Your task to perform on an android device: change keyboard looks Image 0: 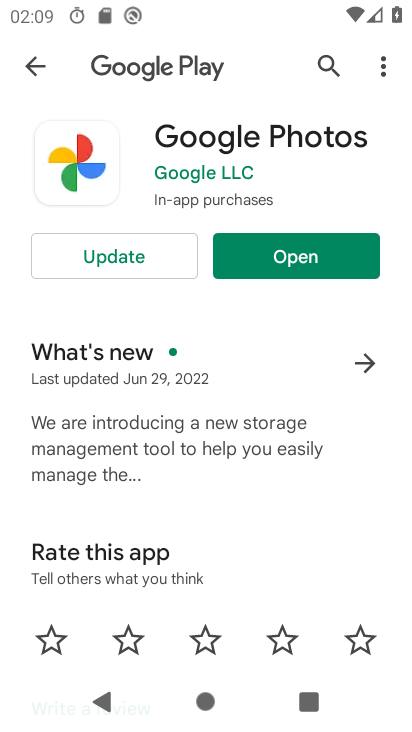
Step 0: press home button
Your task to perform on an android device: change keyboard looks Image 1: 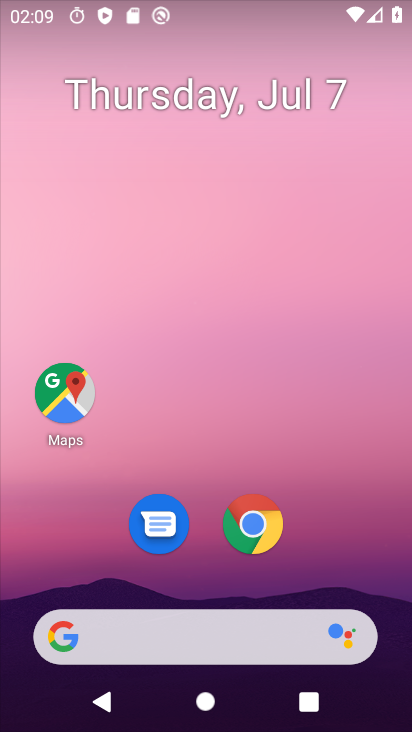
Step 1: drag from (336, 531) to (367, 38)
Your task to perform on an android device: change keyboard looks Image 2: 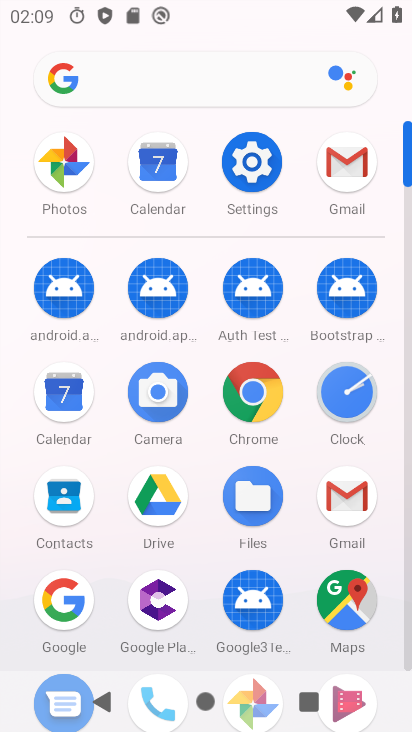
Step 2: click (244, 151)
Your task to perform on an android device: change keyboard looks Image 3: 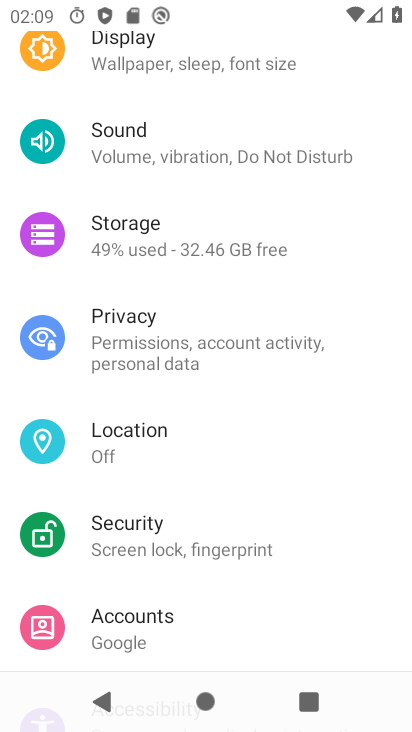
Step 3: drag from (238, 487) to (224, 129)
Your task to perform on an android device: change keyboard looks Image 4: 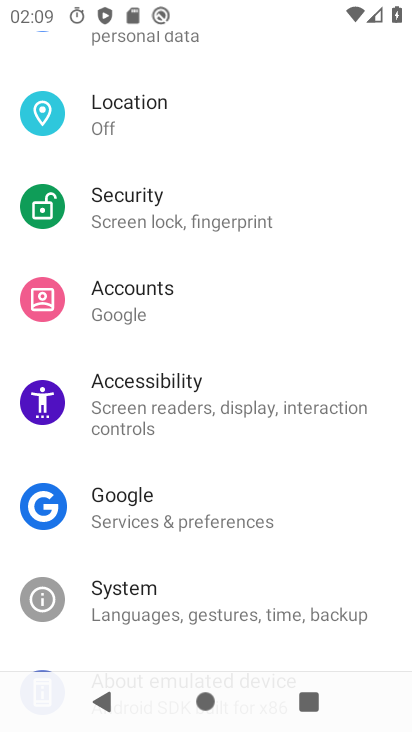
Step 4: drag from (205, 476) to (229, 163)
Your task to perform on an android device: change keyboard looks Image 5: 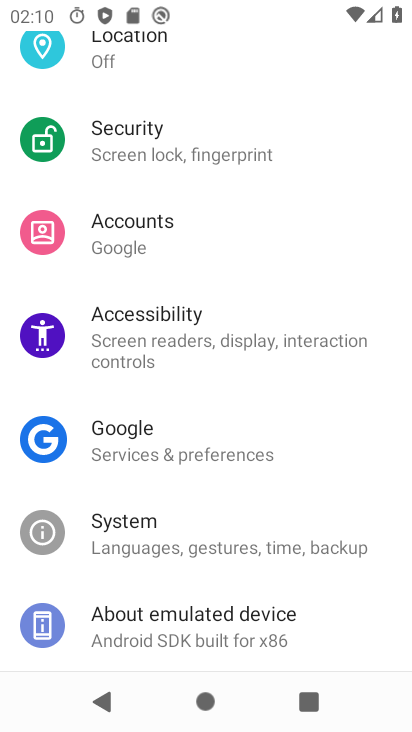
Step 5: click (201, 538)
Your task to perform on an android device: change keyboard looks Image 6: 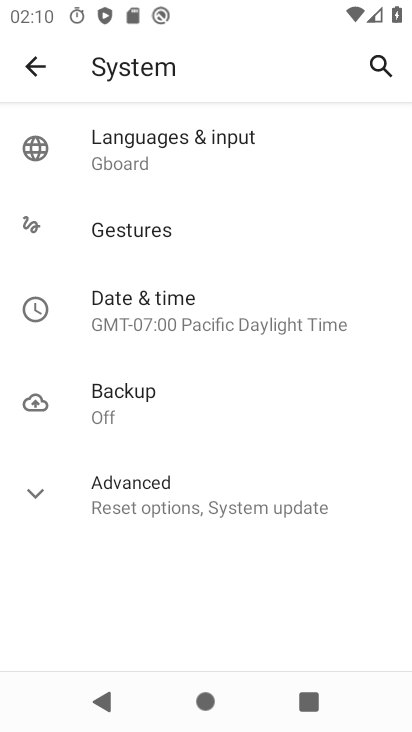
Step 6: click (188, 137)
Your task to perform on an android device: change keyboard looks Image 7: 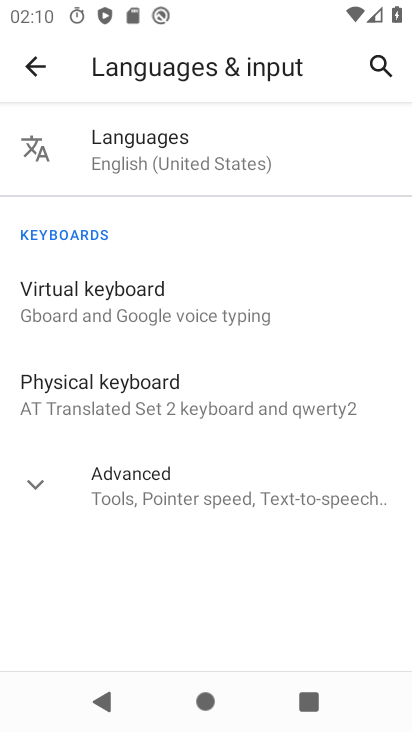
Step 7: click (137, 290)
Your task to perform on an android device: change keyboard looks Image 8: 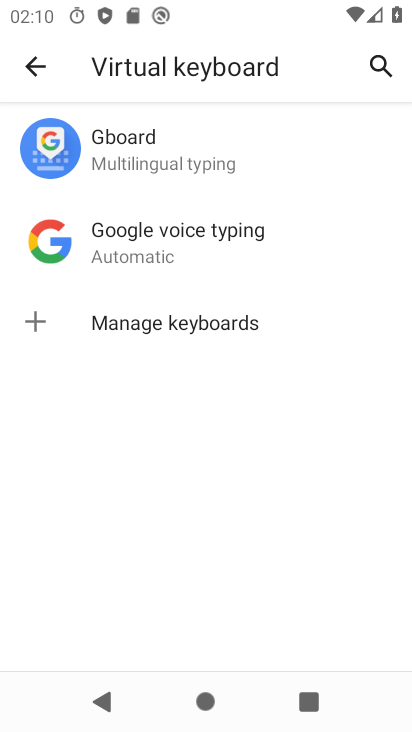
Step 8: click (147, 148)
Your task to perform on an android device: change keyboard looks Image 9: 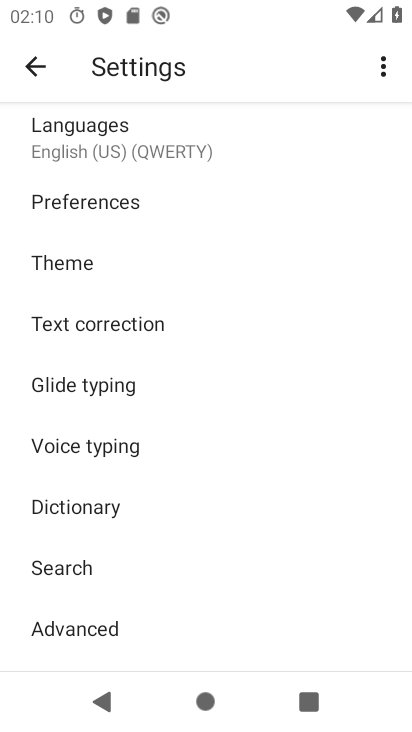
Step 9: click (79, 260)
Your task to perform on an android device: change keyboard looks Image 10: 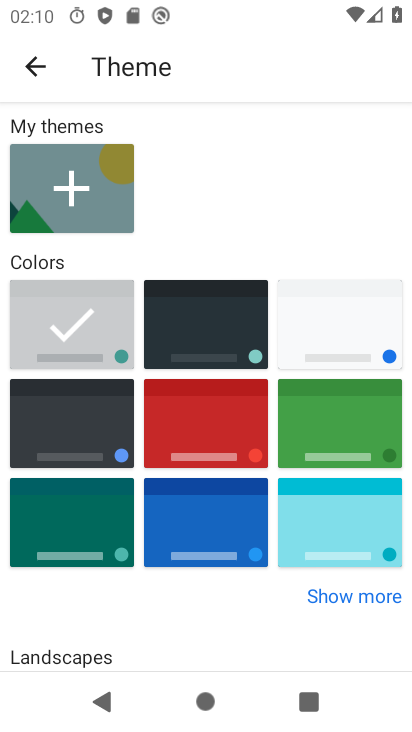
Step 10: click (316, 332)
Your task to perform on an android device: change keyboard looks Image 11: 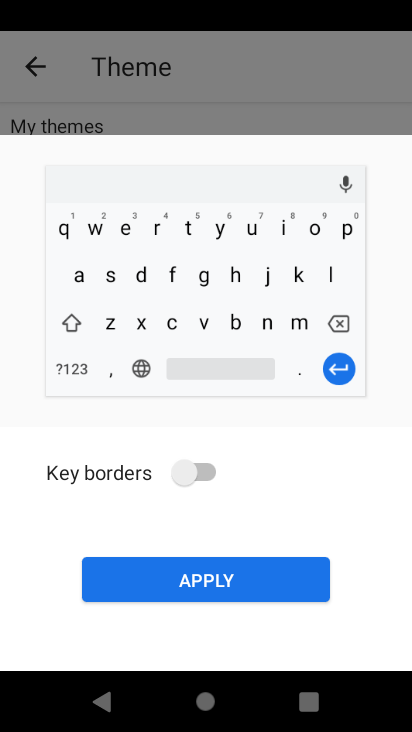
Step 11: click (204, 464)
Your task to perform on an android device: change keyboard looks Image 12: 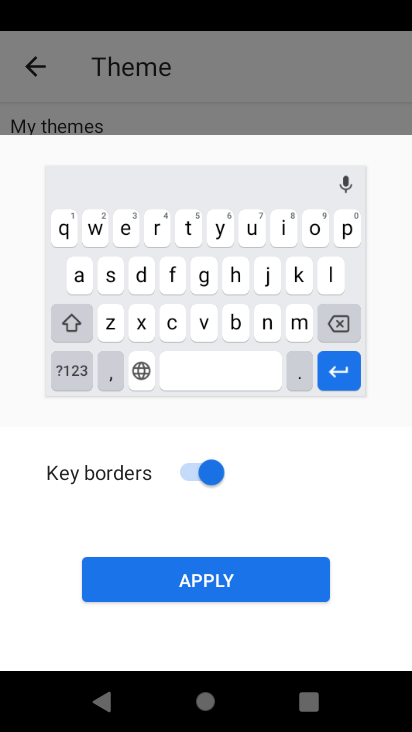
Step 12: click (232, 580)
Your task to perform on an android device: change keyboard looks Image 13: 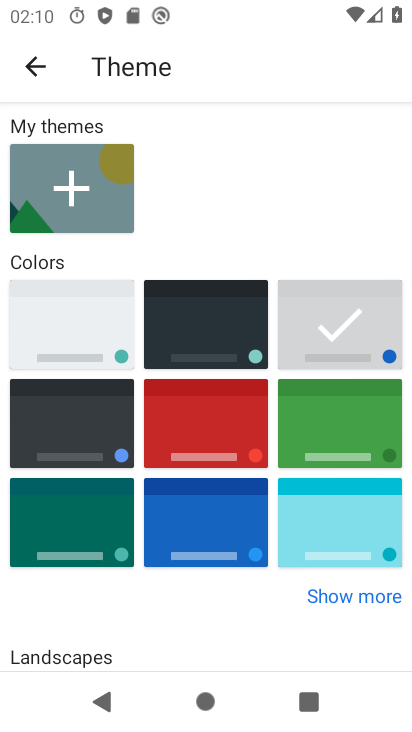
Step 13: task complete